Your task to perform on an android device: change the clock display to show seconds Image 0: 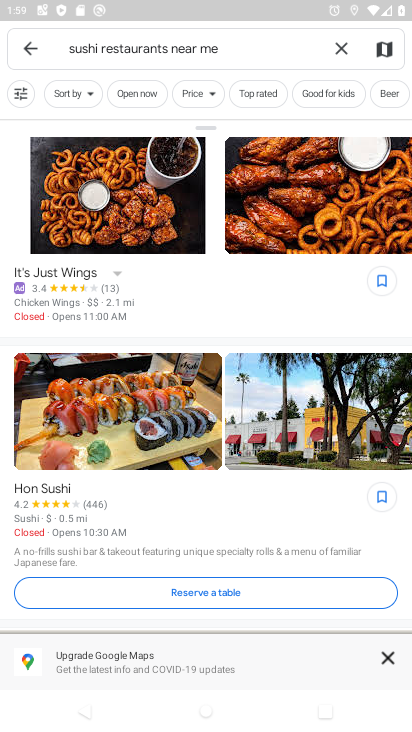
Step 0: press home button
Your task to perform on an android device: change the clock display to show seconds Image 1: 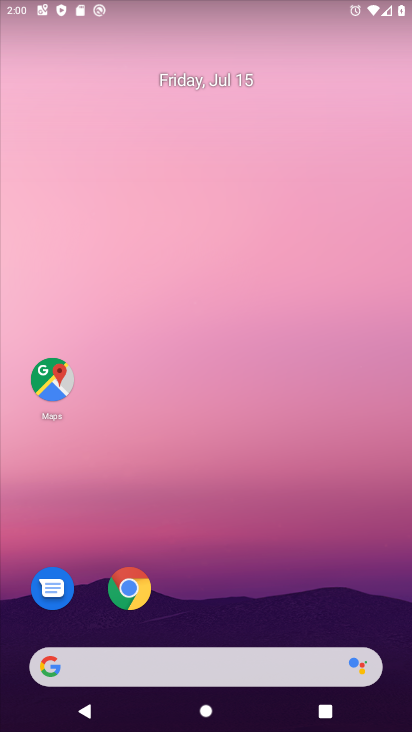
Step 1: drag from (196, 667) to (301, 24)
Your task to perform on an android device: change the clock display to show seconds Image 2: 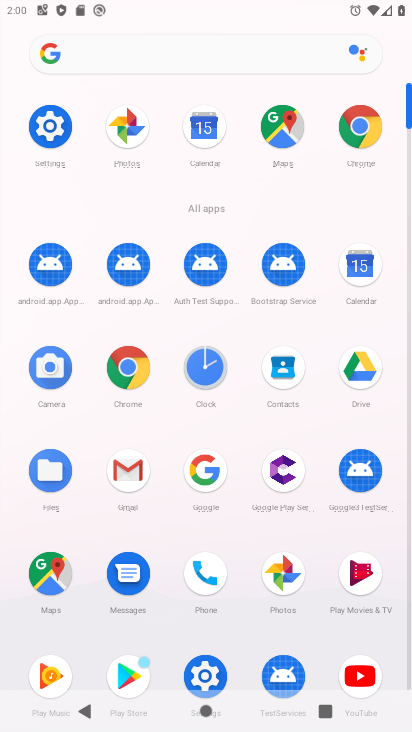
Step 2: click (206, 368)
Your task to perform on an android device: change the clock display to show seconds Image 3: 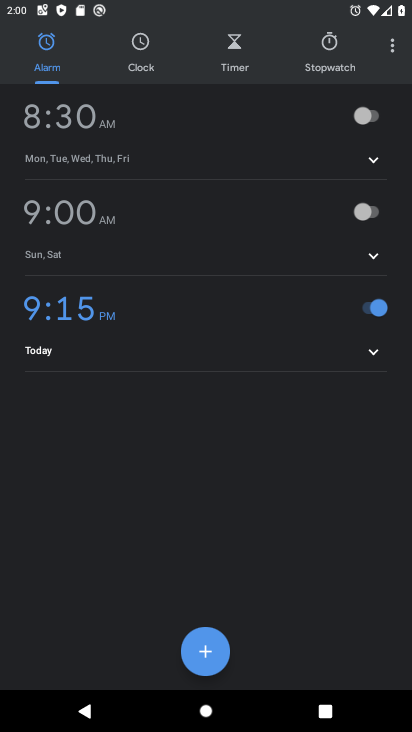
Step 3: click (394, 47)
Your task to perform on an android device: change the clock display to show seconds Image 4: 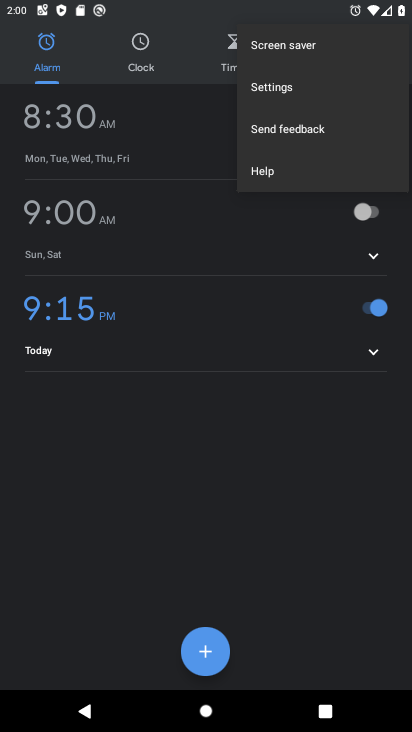
Step 4: click (279, 84)
Your task to perform on an android device: change the clock display to show seconds Image 5: 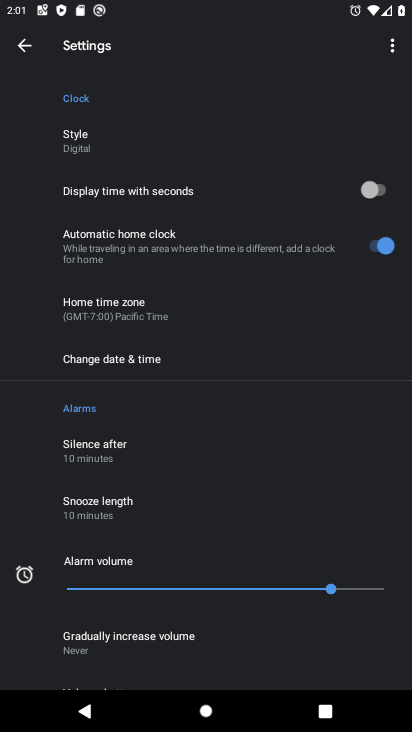
Step 5: click (366, 191)
Your task to perform on an android device: change the clock display to show seconds Image 6: 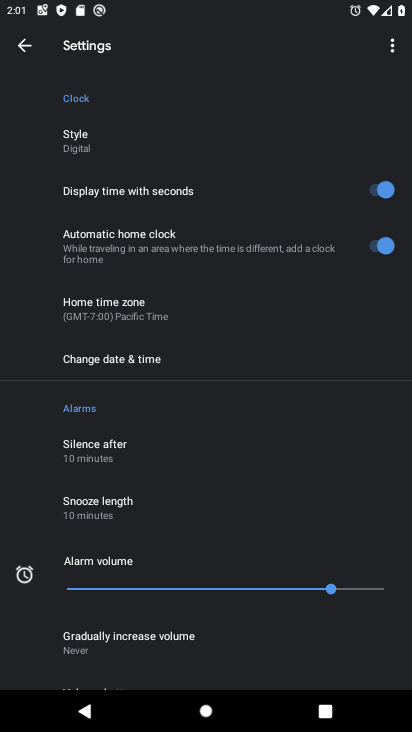
Step 6: task complete